Your task to perform on an android device: See recent photos Image 0: 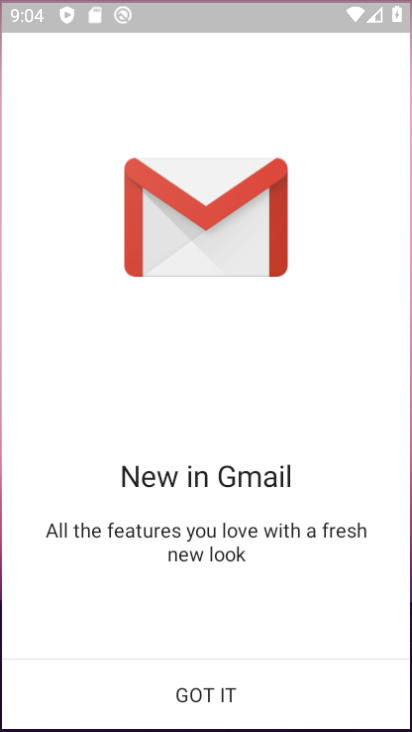
Step 0: drag from (208, 642) to (207, 22)
Your task to perform on an android device: See recent photos Image 1: 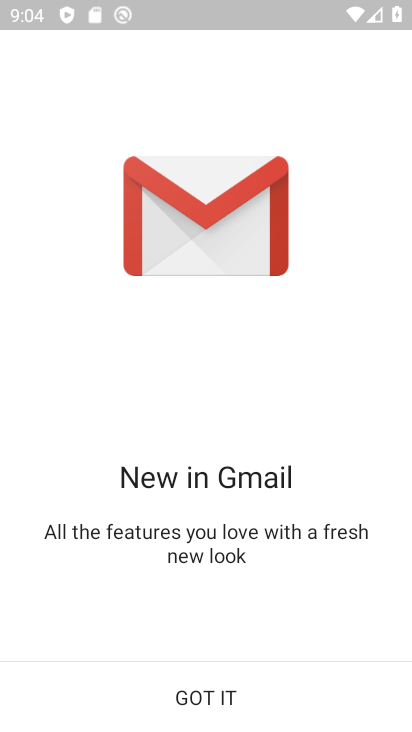
Step 1: press home button
Your task to perform on an android device: See recent photos Image 2: 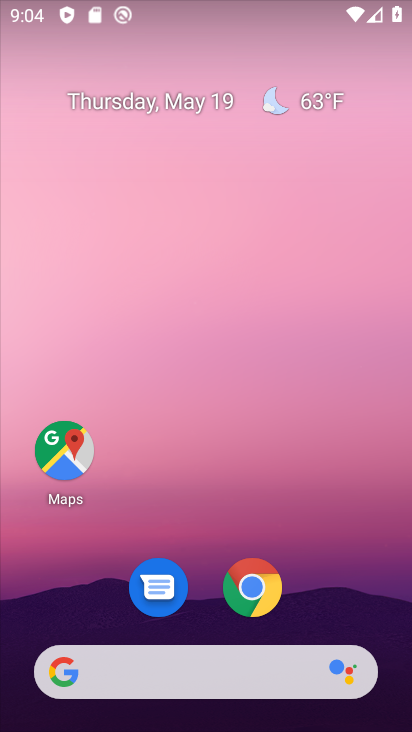
Step 2: drag from (205, 639) to (168, 34)
Your task to perform on an android device: See recent photos Image 3: 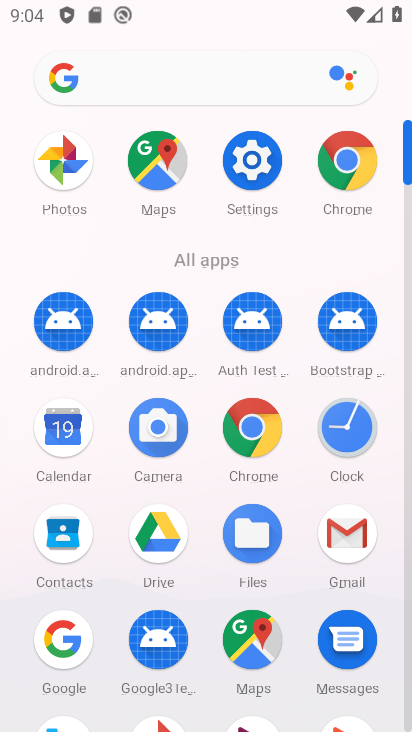
Step 3: click (55, 160)
Your task to perform on an android device: See recent photos Image 4: 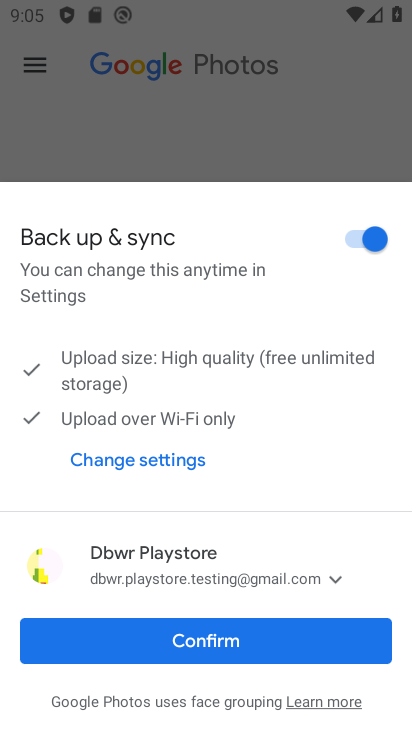
Step 4: click (230, 654)
Your task to perform on an android device: See recent photos Image 5: 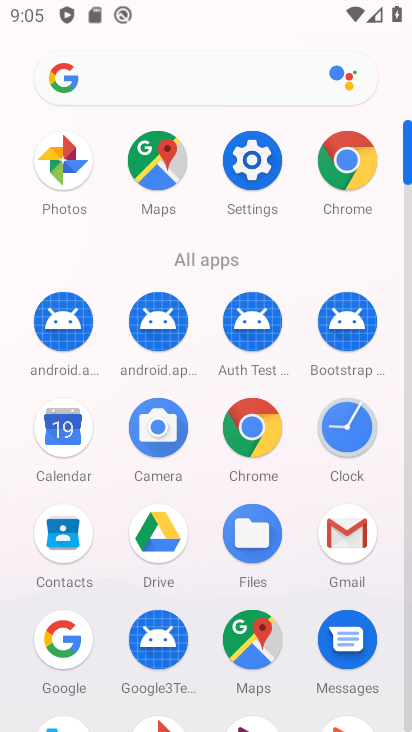
Step 5: click (78, 192)
Your task to perform on an android device: See recent photos Image 6: 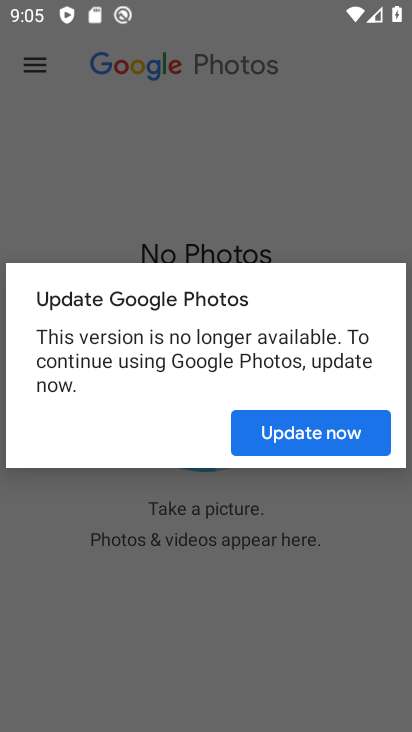
Step 6: click (315, 443)
Your task to perform on an android device: See recent photos Image 7: 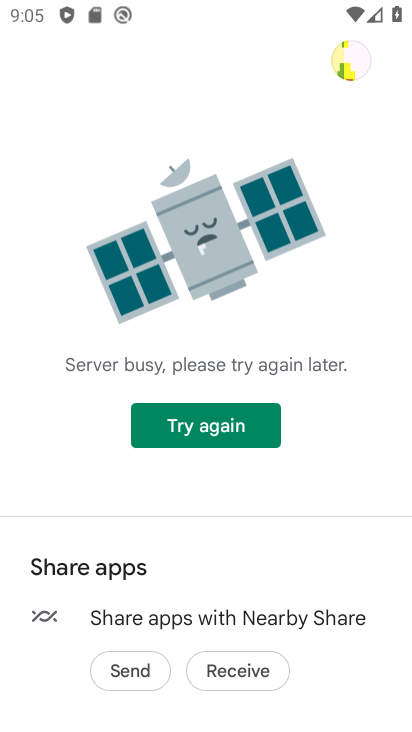
Step 7: click (210, 444)
Your task to perform on an android device: See recent photos Image 8: 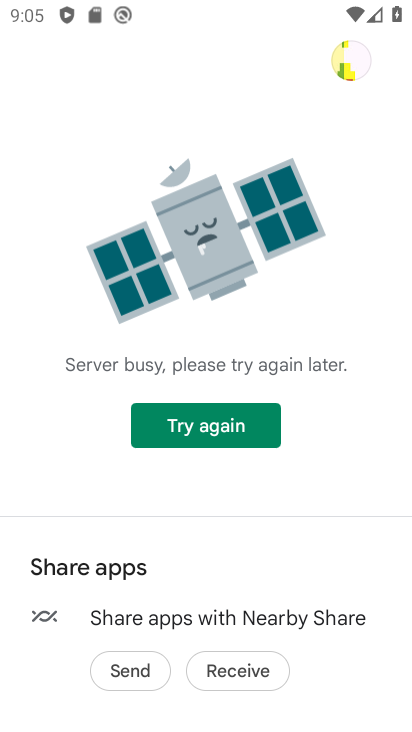
Step 8: task complete